Your task to perform on an android device: turn notification dots on Image 0: 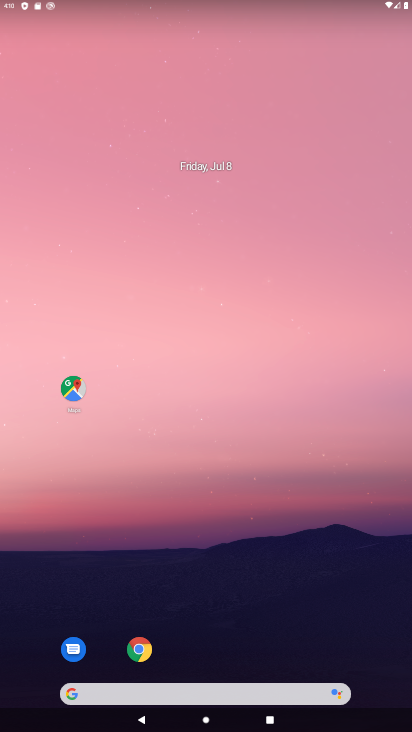
Step 0: drag from (212, 674) to (286, 154)
Your task to perform on an android device: turn notification dots on Image 1: 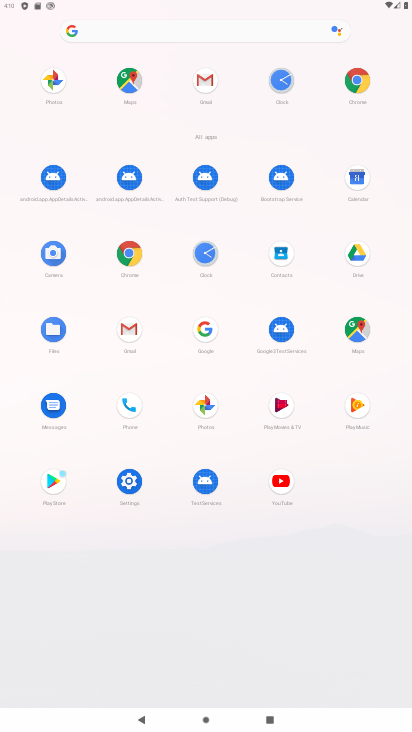
Step 1: click (131, 480)
Your task to perform on an android device: turn notification dots on Image 2: 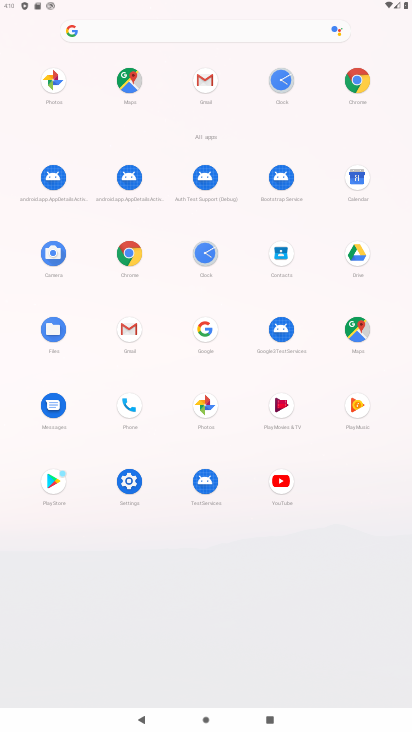
Step 2: click (126, 482)
Your task to perform on an android device: turn notification dots on Image 3: 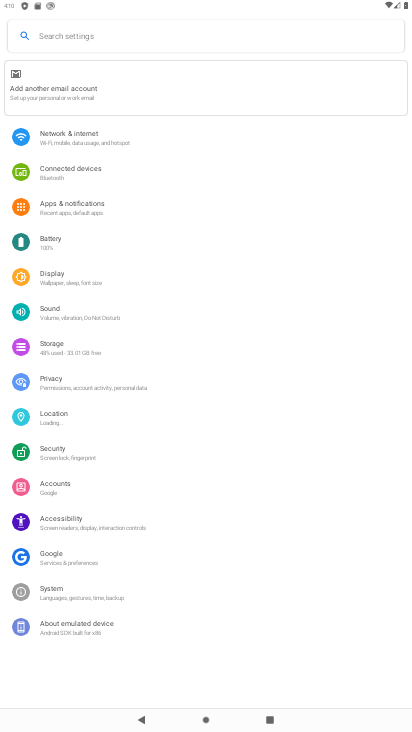
Step 3: drag from (106, 487) to (195, 279)
Your task to perform on an android device: turn notification dots on Image 4: 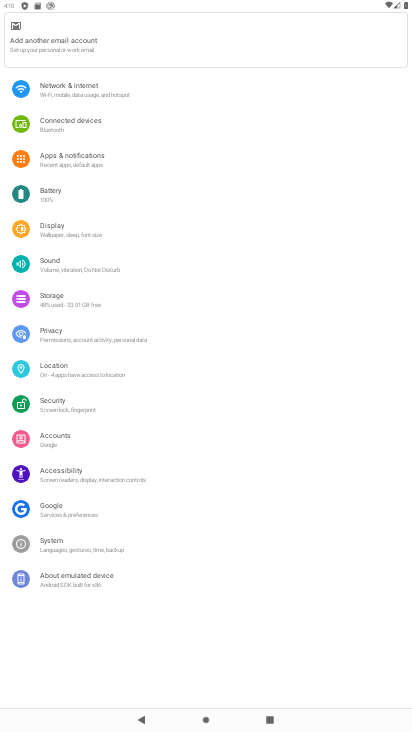
Step 4: click (116, 157)
Your task to perform on an android device: turn notification dots on Image 5: 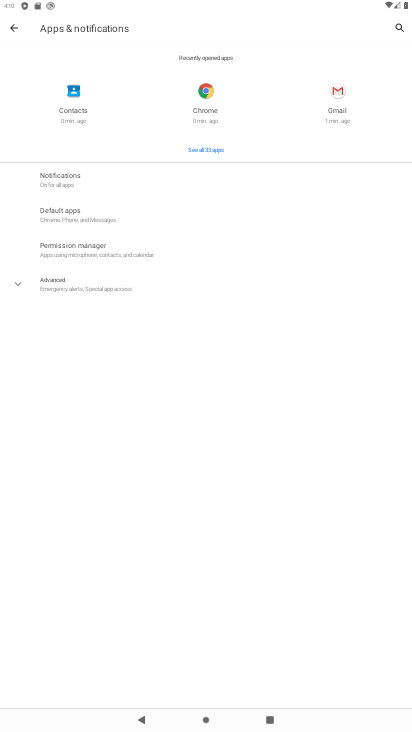
Step 5: click (123, 182)
Your task to perform on an android device: turn notification dots on Image 6: 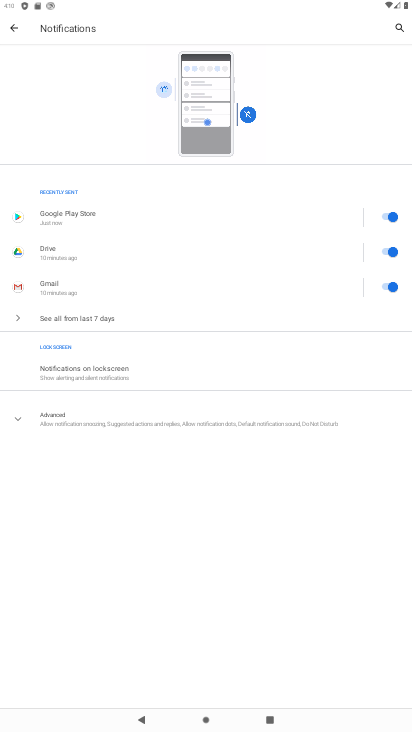
Step 6: click (131, 414)
Your task to perform on an android device: turn notification dots on Image 7: 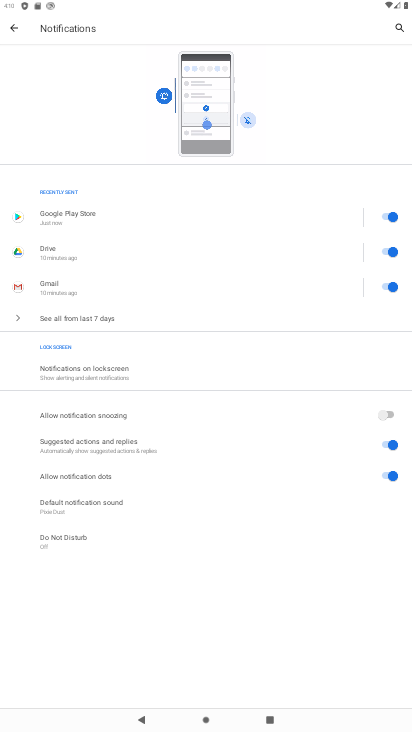
Step 7: task complete